Your task to perform on an android device: install app "Microsoft Excel" Image 0: 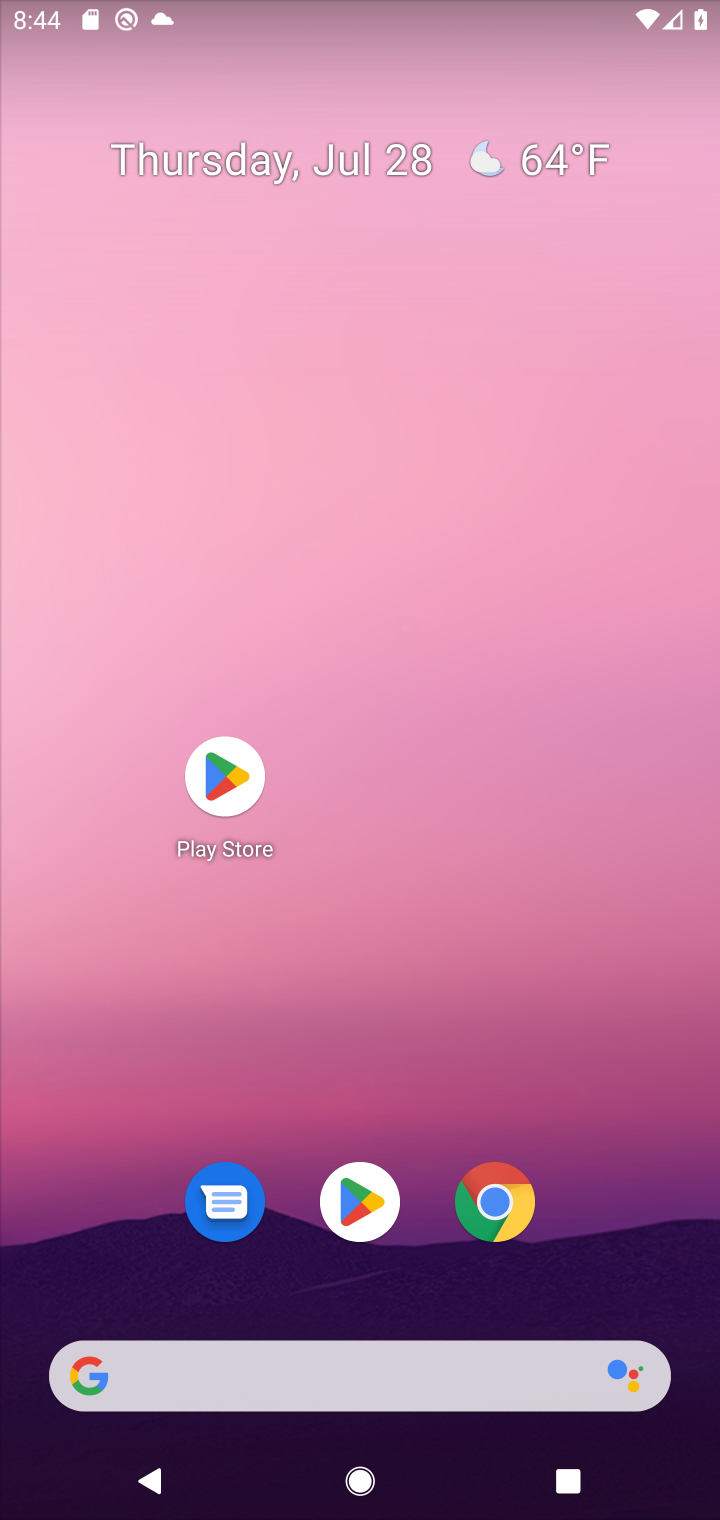
Step 0: click (365, 1180)
Your task to perform on an android device: install app "Microsoft Excel" Image 1: 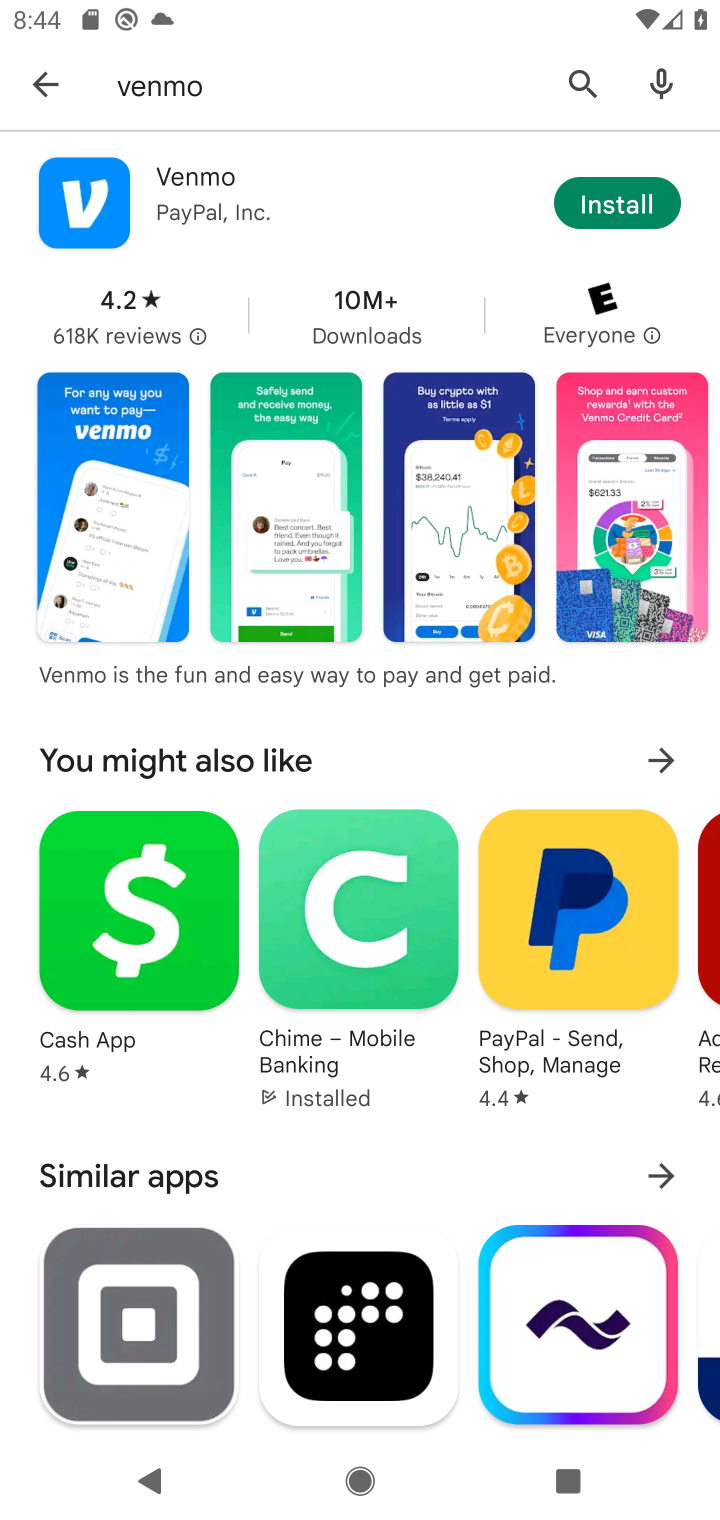
Step 1: click (579, 89)
Your task to perform on an android device: install app "Microsoft Excel" Image 2: 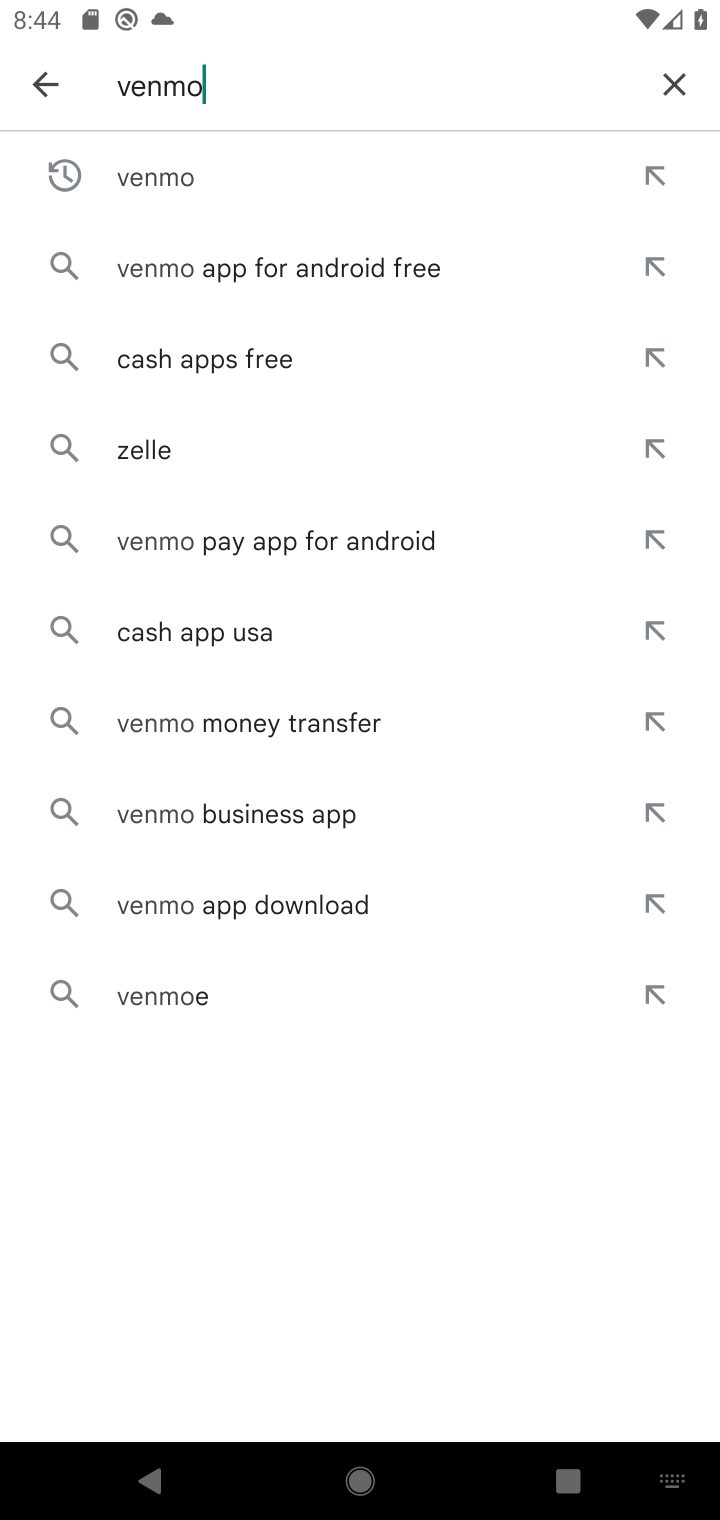
Step 2: click (681, 92)
Your task to perform on an android device: install app "Microsoft Excel" Image 3: 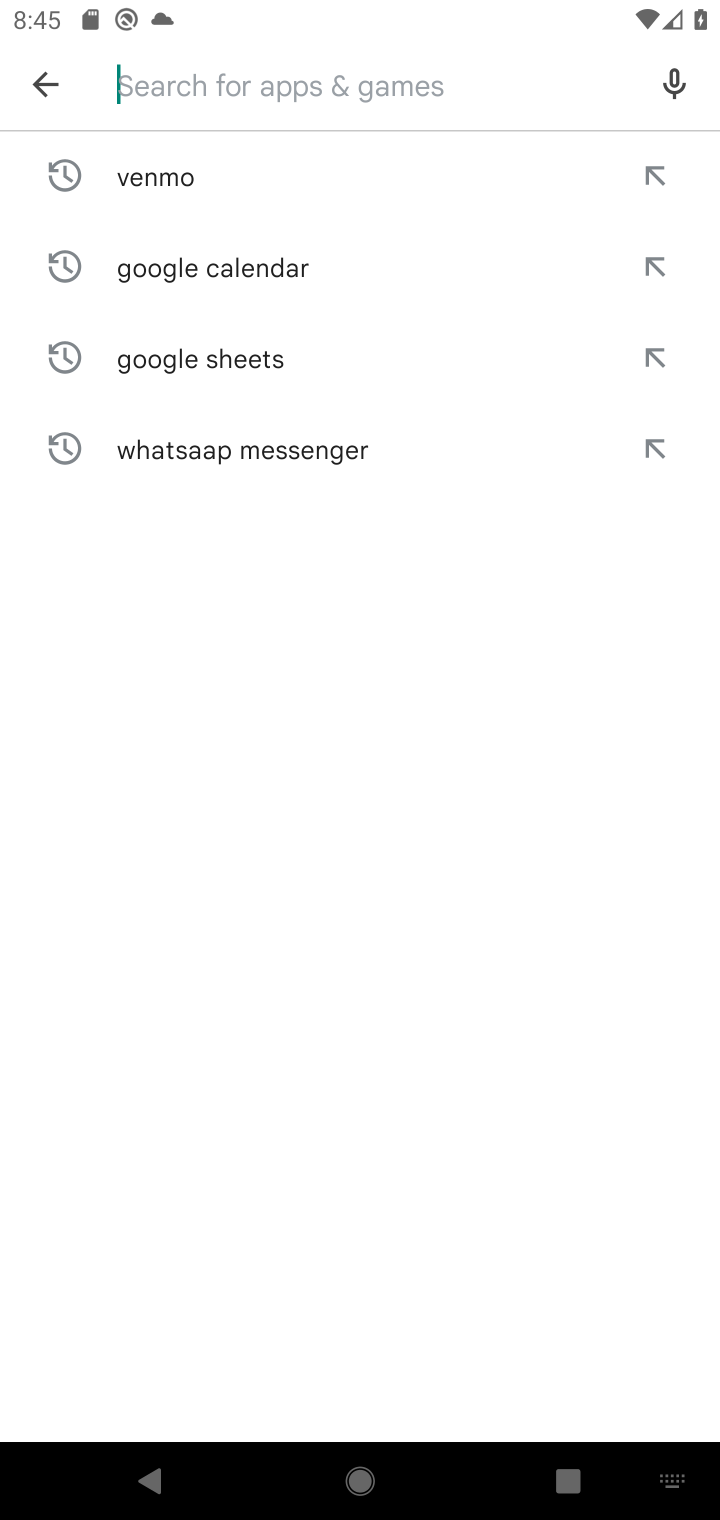
Step 3: type "microsoft excel"
Your task to perform on an android device: install app "Microsoft Excel" Image 4: 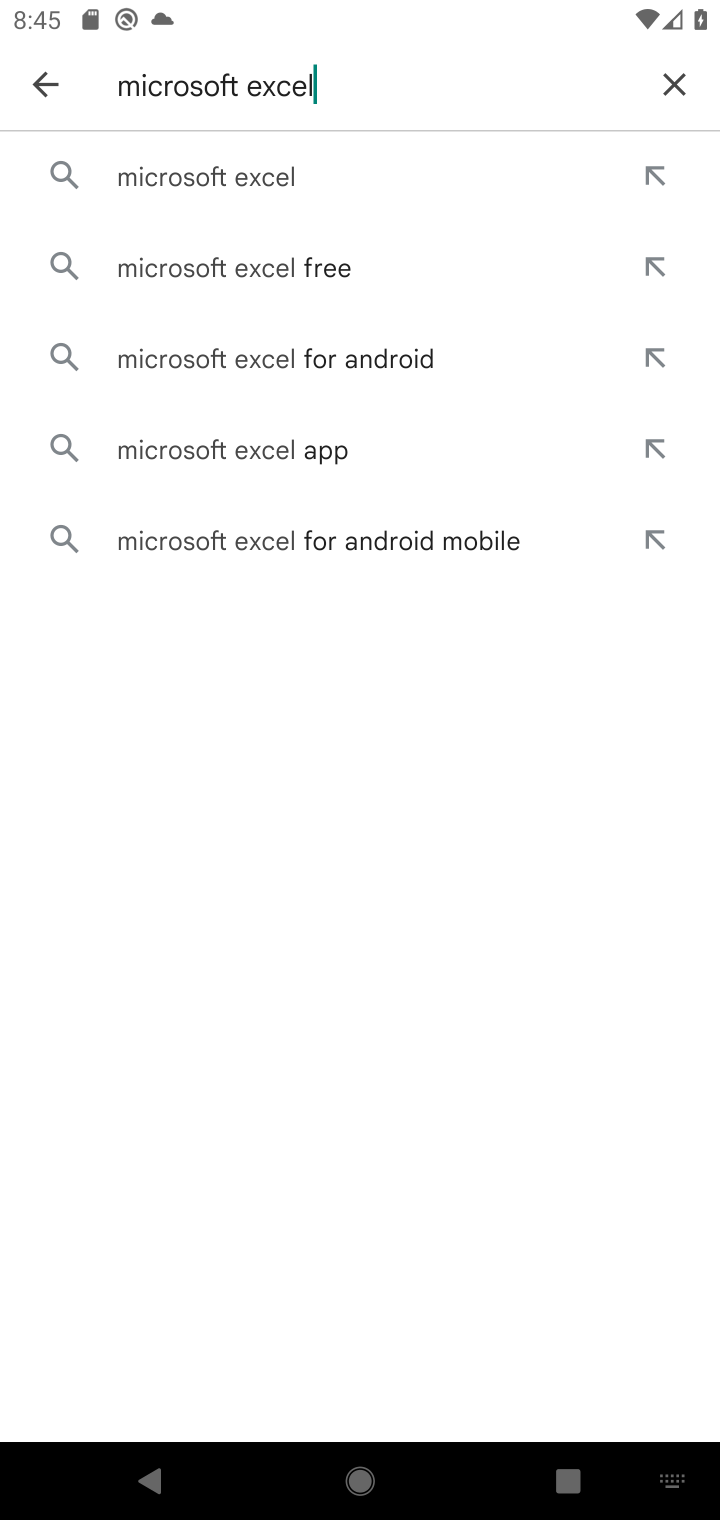
Step 4: click (270, 168)
Your task to perform on an android device: install app "Microsoft Excel" Image 5: 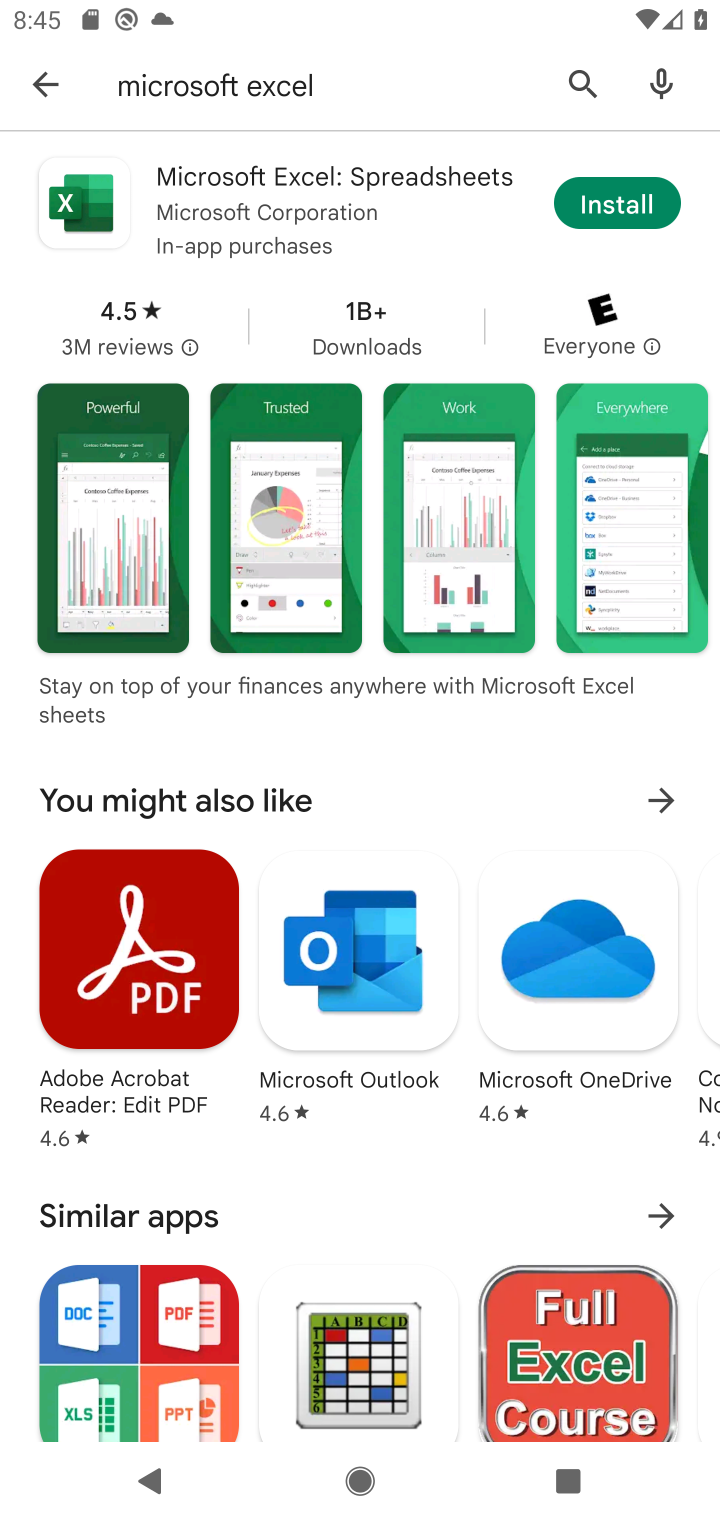
Step 5: click (616, 193)
Your task to perform on an android device: install app "Microsoft Excel" Image 6: 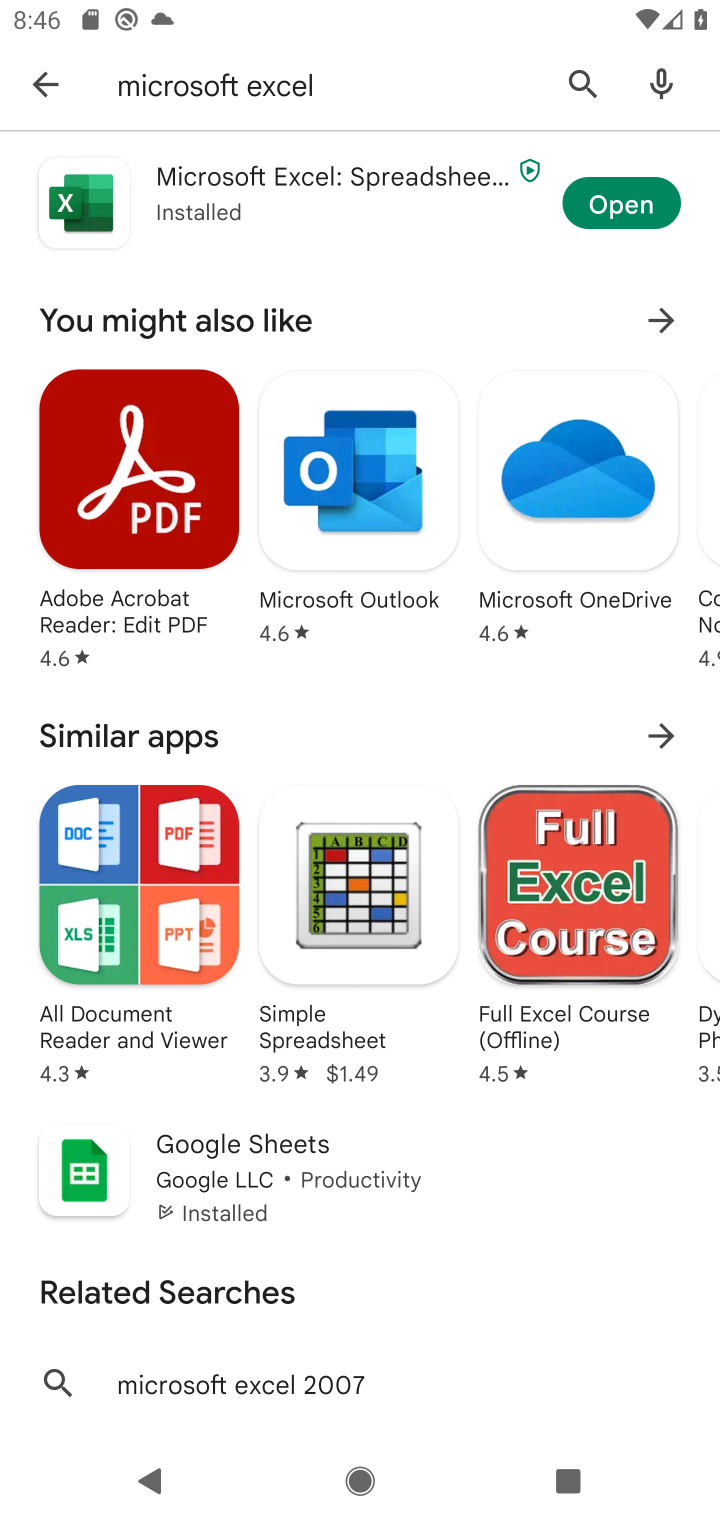
Step 6: task complete